Your task to perform on an android device: create a new album in the google photos Image 0: 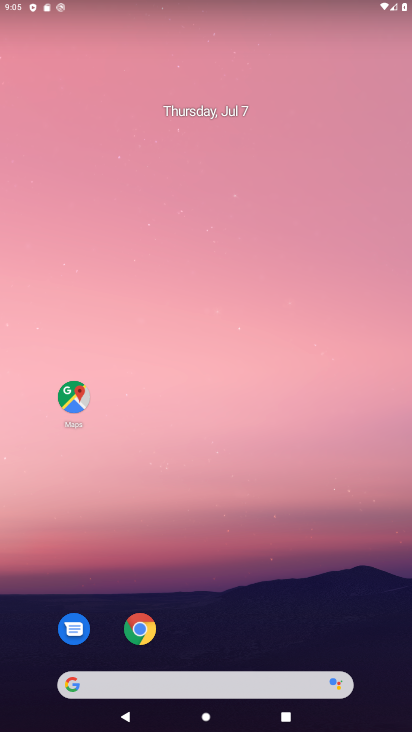
Step 0: drag from (216, 591) to (151, 39)
Your task to perform on an android device: create a new album in the google photos Image 1: 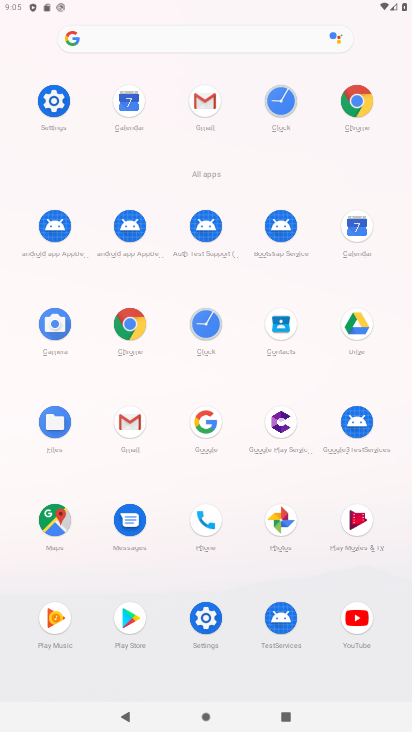
Step 1: click (281, 523)
Your task to perform on an android device: create a new album in the google photos Image 2: 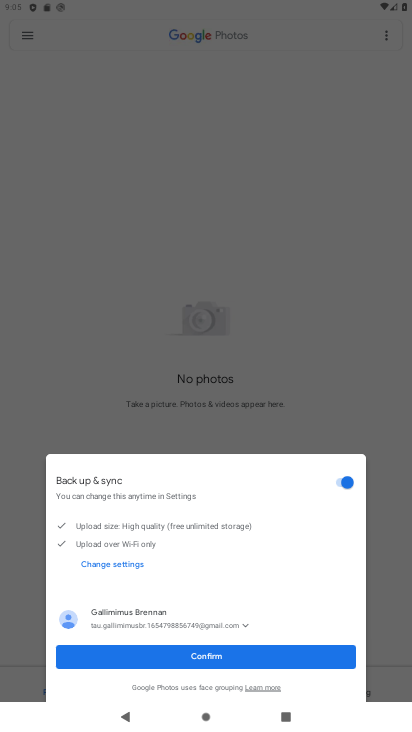
Step 2: click (205, 657)
Your task to perform on an android device: create a new album in the google photos Image 3: 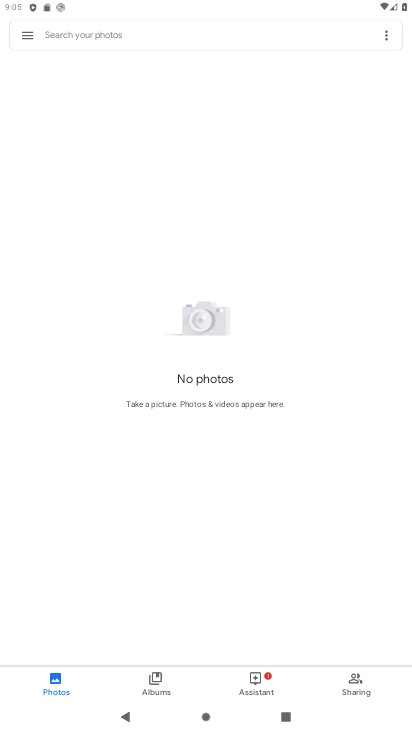
Step 3: click (387, 30)
Your task to perform on an android device: create a new album in the google photos Image 4: 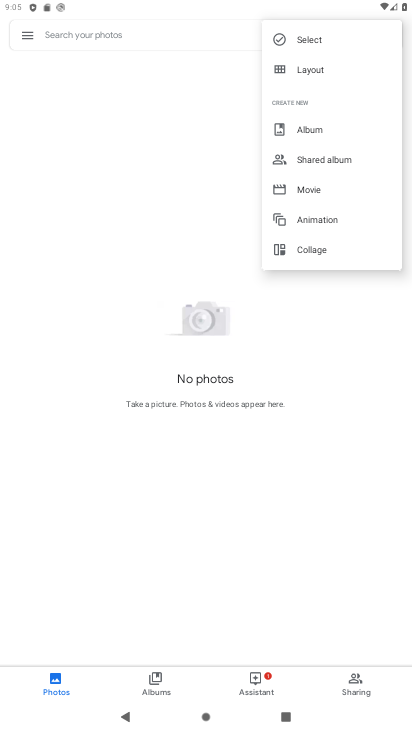
Step 4: click (307, 129)
Your task to perform on an android device: create a new album in the google photos Image 5: 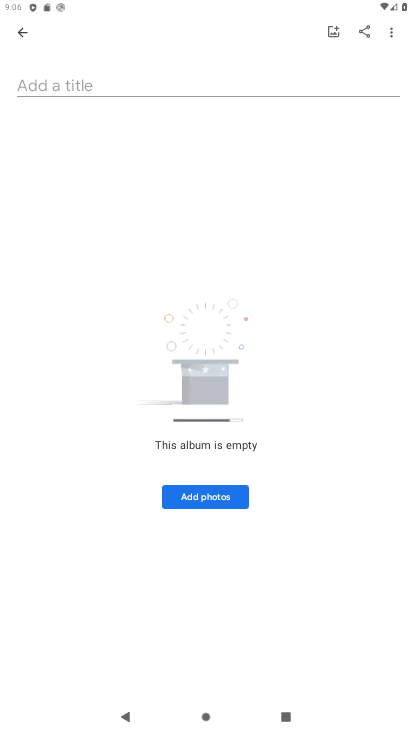
Step 5: click (63, 71)
Your task to perform on an android device: create a new album in the google photos Image 6: 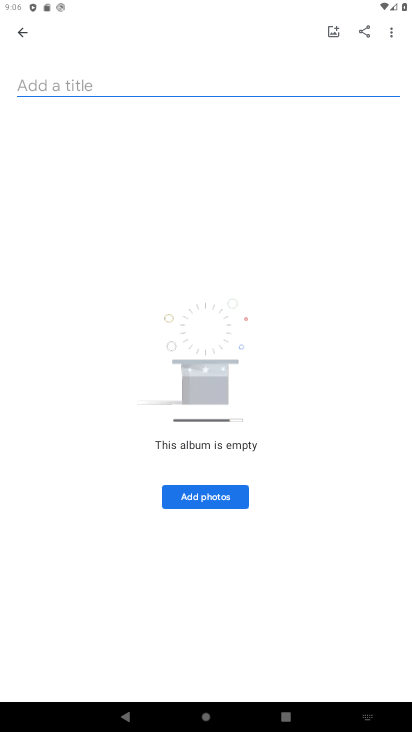
Step 6: type "Riki"
Your task to perform on an android device: create a new album in the google photos Image 7: 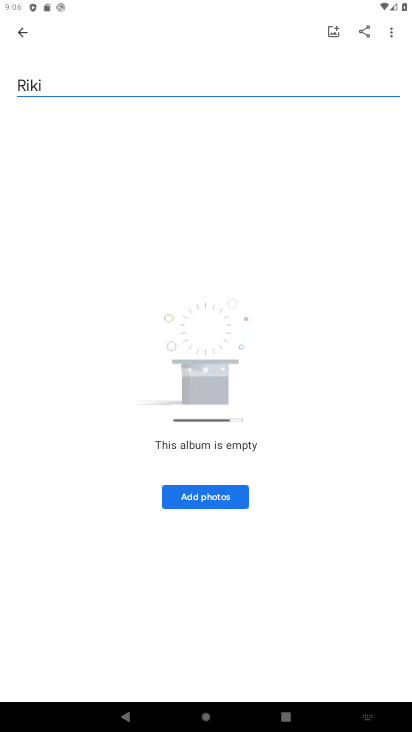
Step 7: click (26, 32)
Your task to perform on an android device: create a new album in the google photos Image 8: 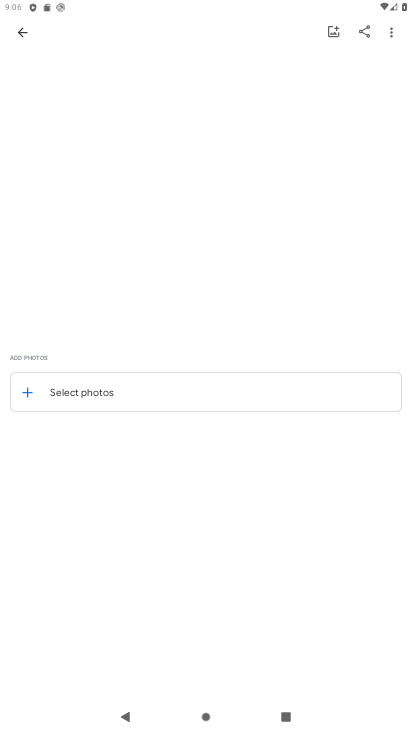
Step 8: task complete